Your task to perform on an android device: What's the weather going to be tomorrow? Image 0: 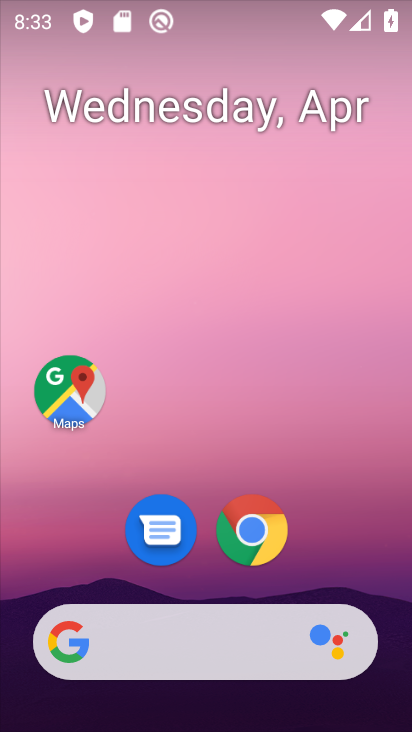
Step 0: click (246, 530)
Your task to perform on an android device: What's the weather going to be tomorrow? Image 1: 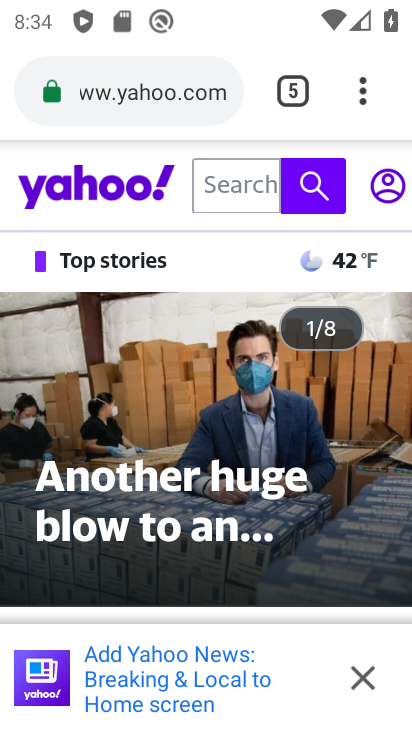
Step 1: click (191, 85)
Your task to perform on an android device: What's the weather going to be tomorrow? Image 2: 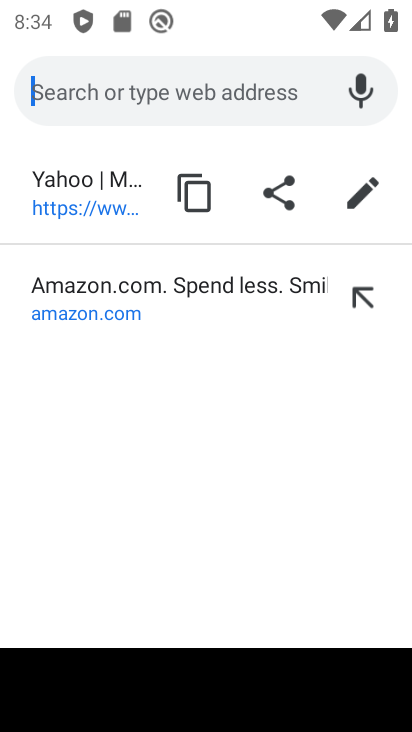
Step 2: type "What's the weather going to be tomorrow?"
Your task to perform on an android device: What's the weather going to be tomorrow? Image 3: 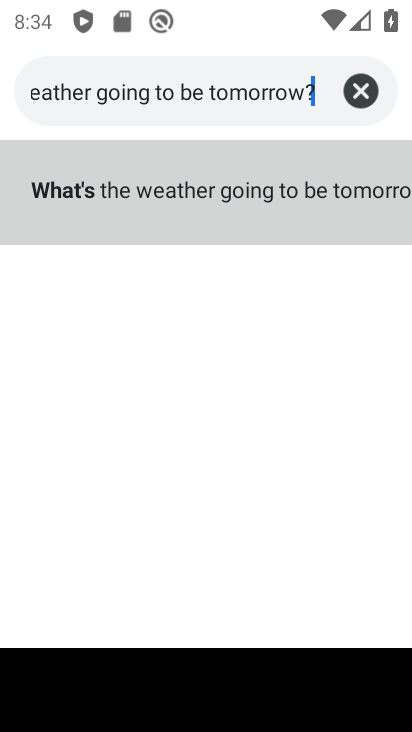
Step 3: click (316, 190)
Your task to perform on an android device: What's the weather going to be tomorrow? Image 4: 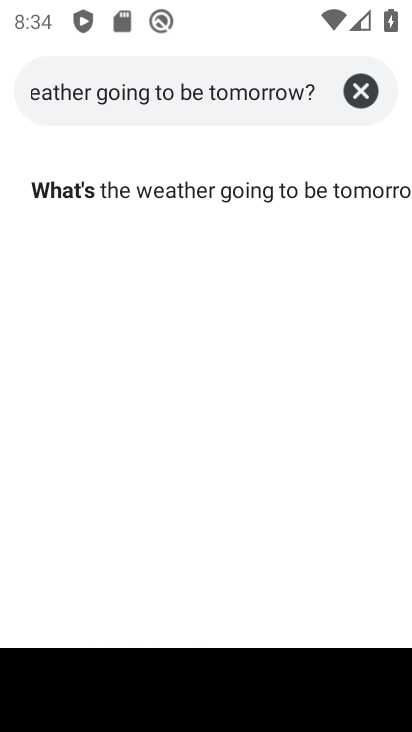
Step 4: press enter
Your task to perform on an android device: What's the weather going to be tomorrow? Image 5: 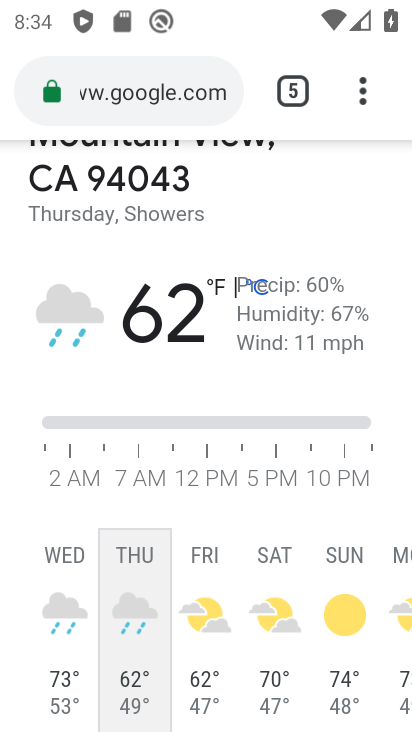
Step 5: task complete